Your task to perform on an android device: What's on my calendar tomorrow? Image 0: 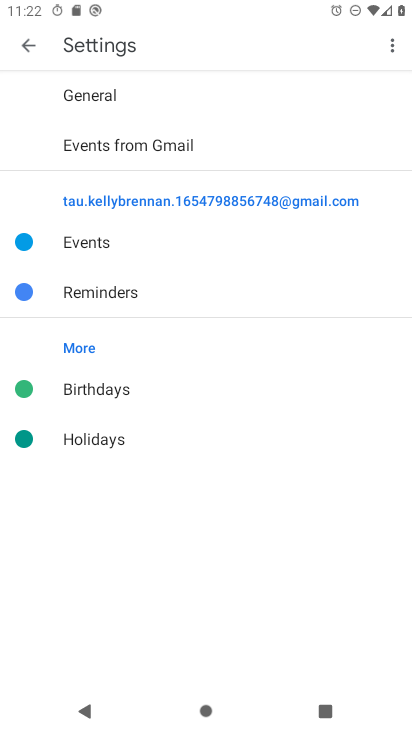
Step 0: press back button
Your task to perform on an android device: What's on my calendar tomorrow? Image 1: 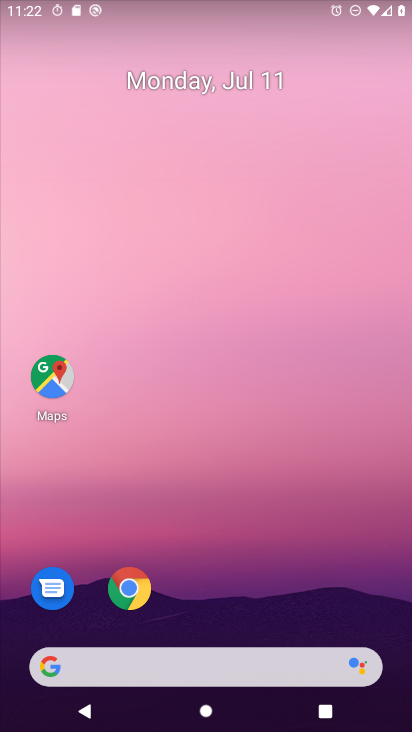
Step 1: drag from (210, 620) to (217, 8)
Your task to perform on an android device: What's on my calendar tomorrow? Image 2: 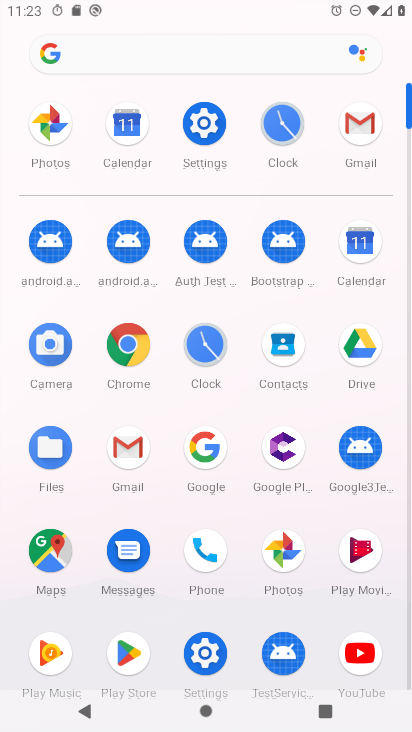
Step 2: click (359, 252)
Your task to perform on an android device: What's on my calendar tomorrow? Image 3: 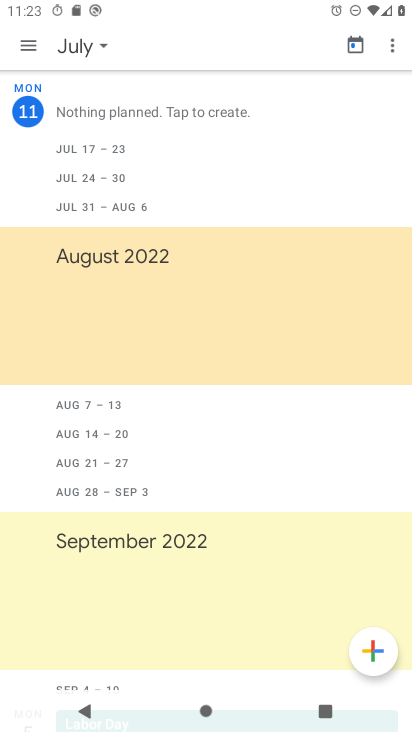
Step 3: task complete